Your task to perform on an android device: Open display settings Image 0: 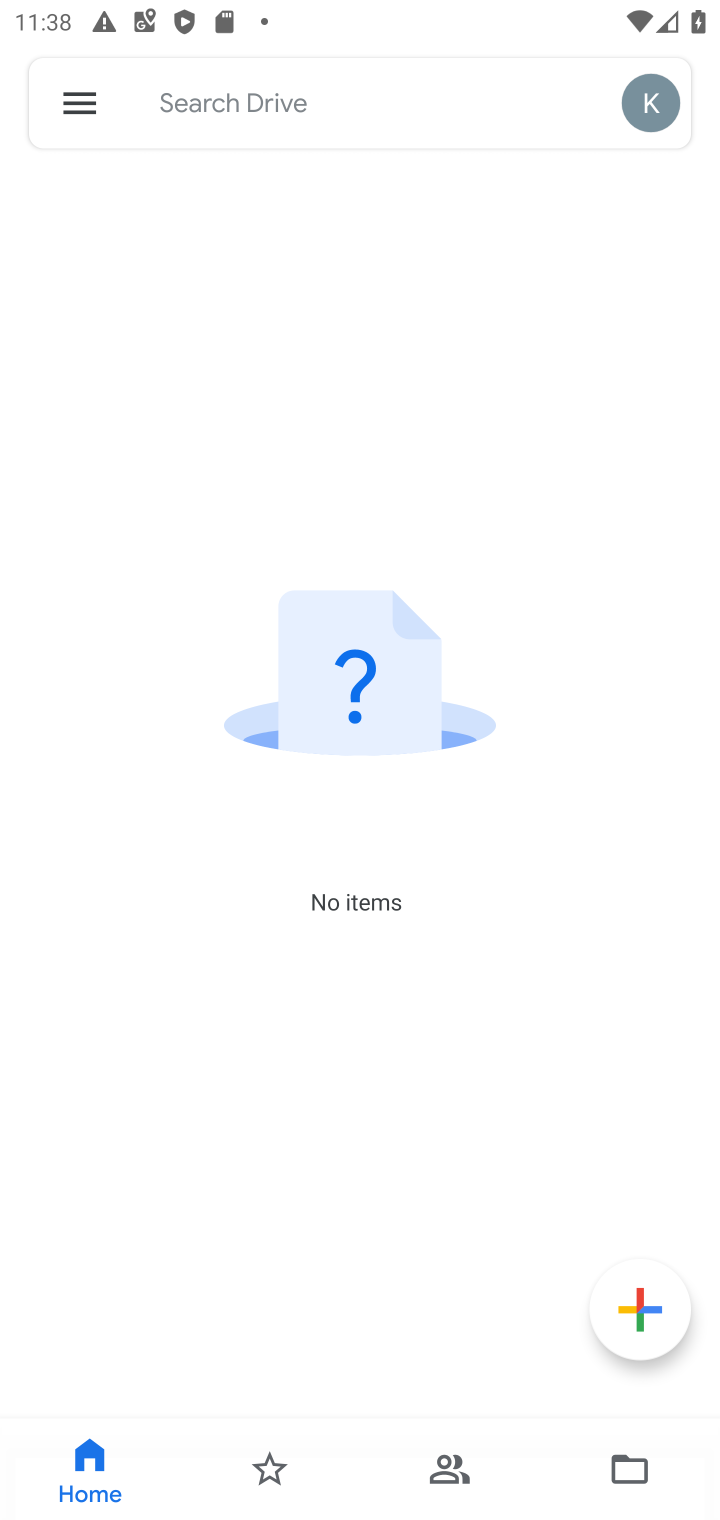
Step 0: press home button
Your task to perform on an android device: Open display settings Image 1: 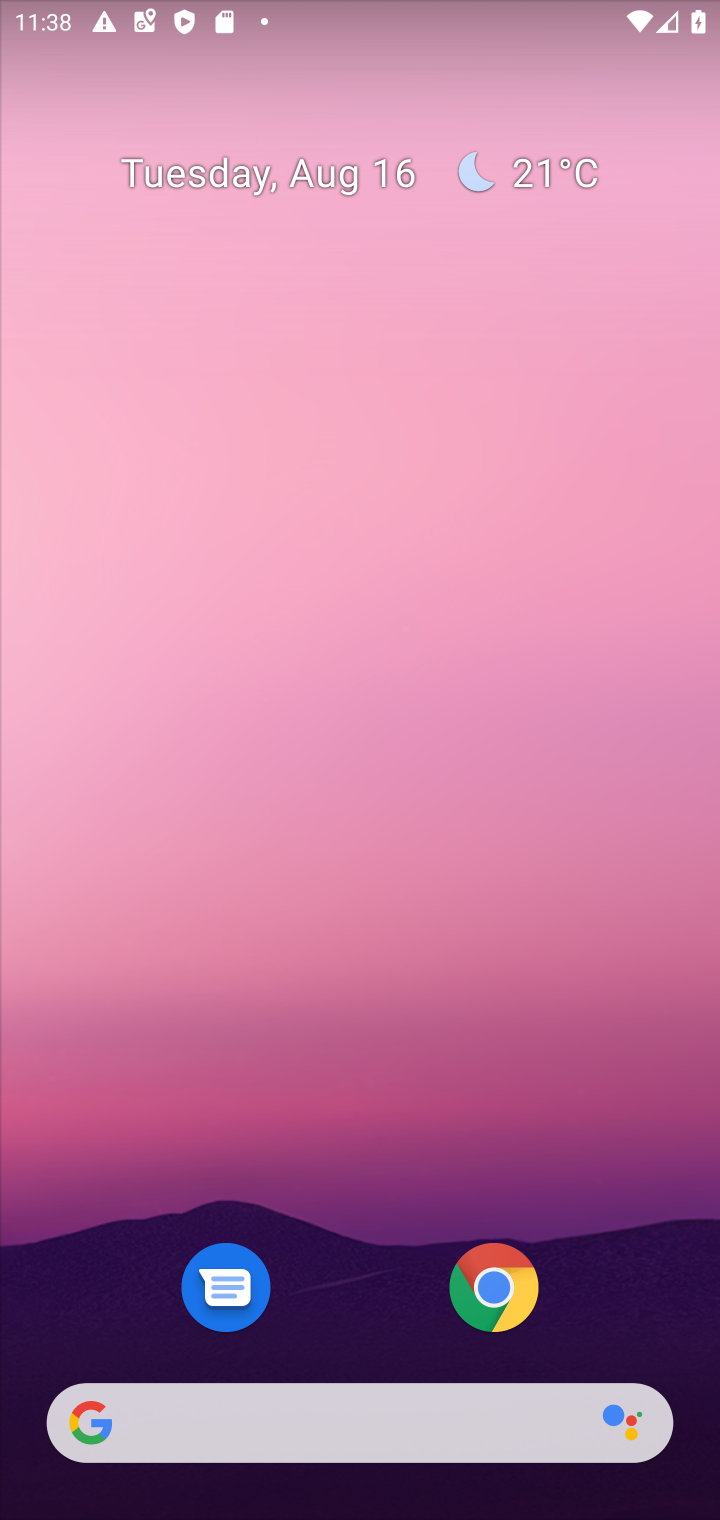
Step 1: drag from (666, 1323) to (601, 327)
Your task to perform on an android device: Open display settings Image 2: 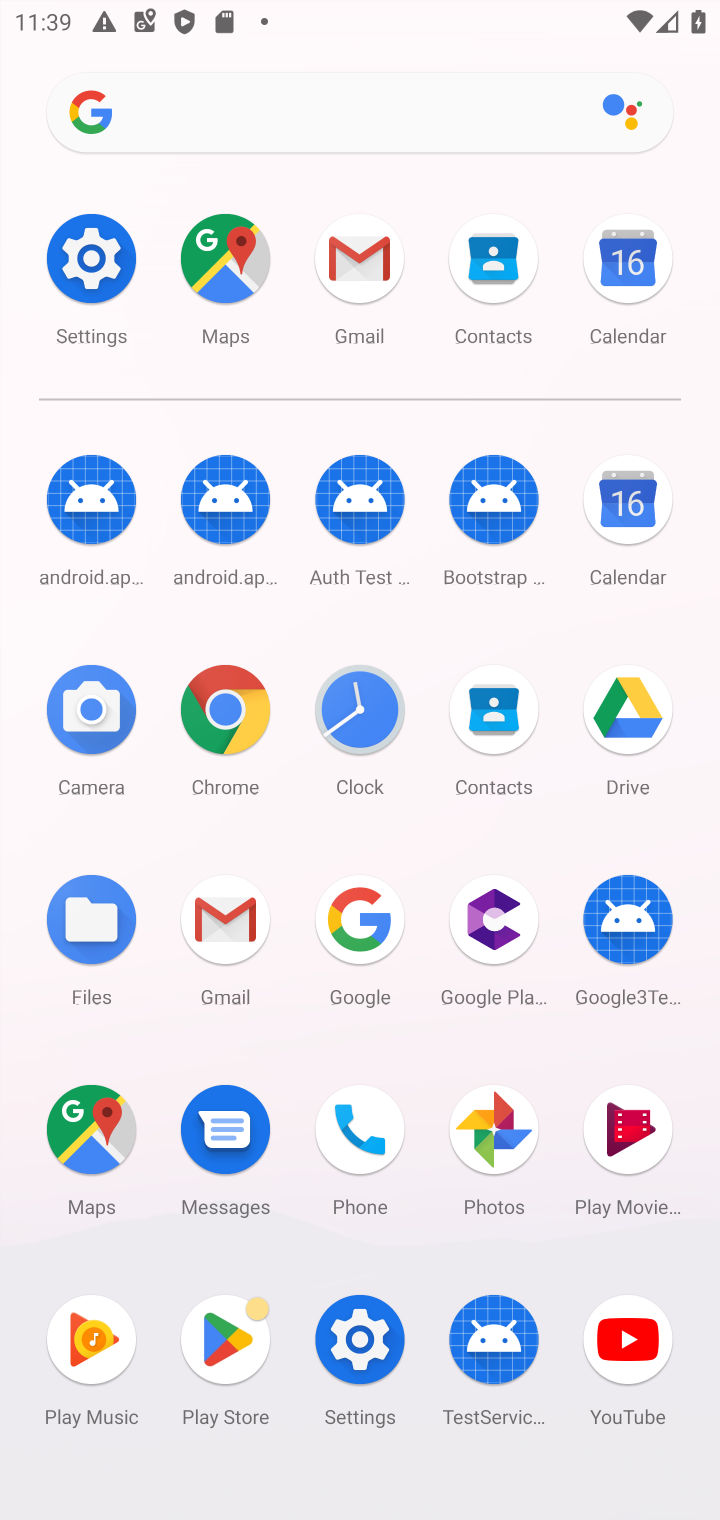
Step 2: click (355, 1339)
Your task to perform on an android device: Open display settings Image 3: 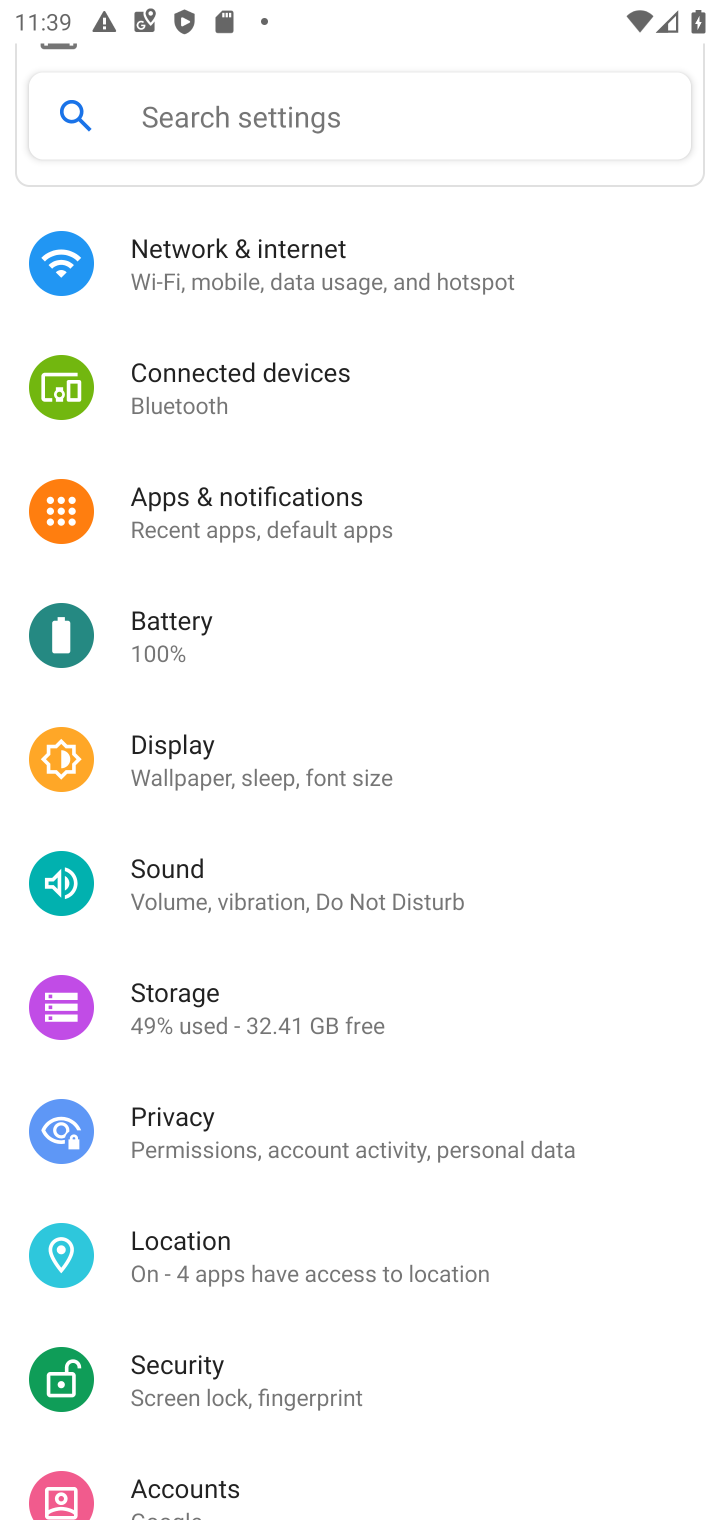
Step 3: click (183, 758)
Your task to perform on an android device: Open display settings Image 4: 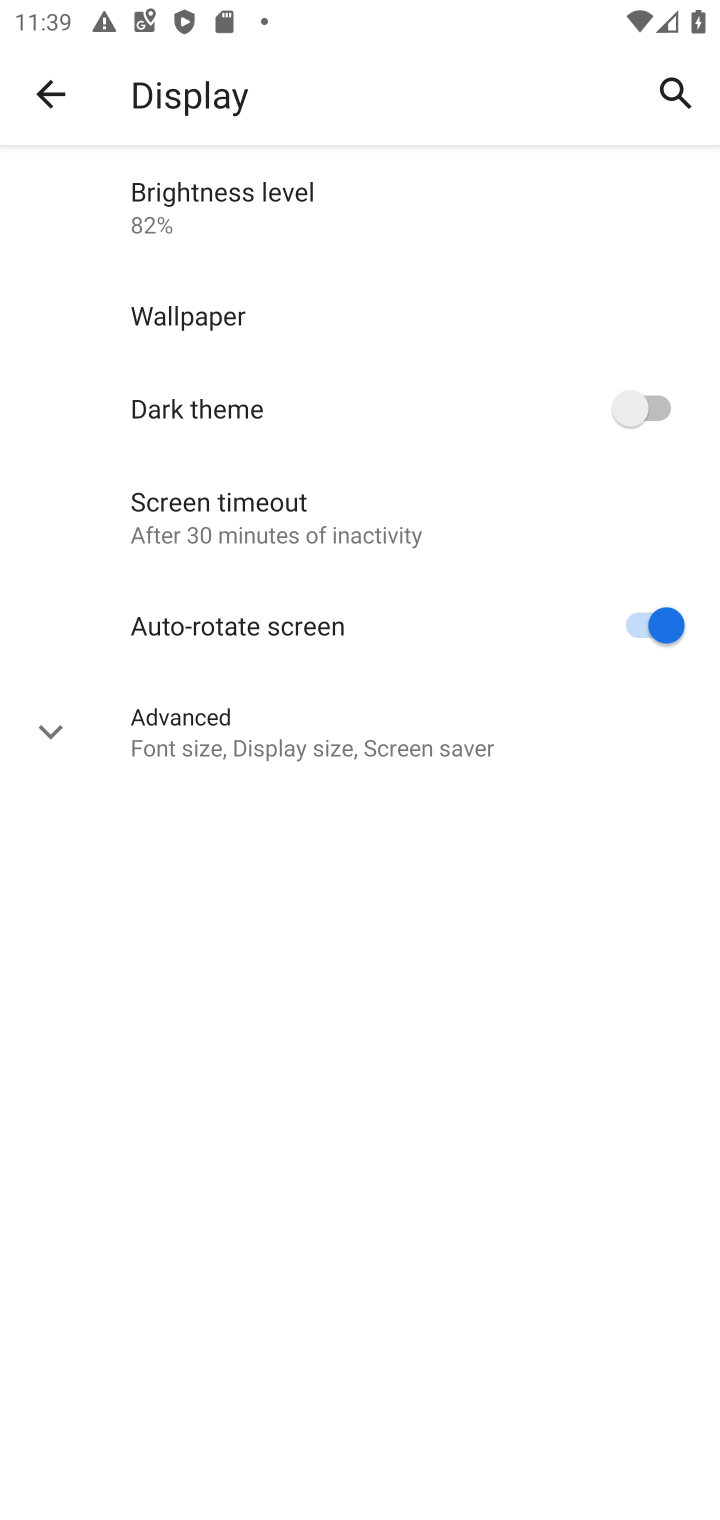
Step 4: click (39, 732)
Your task to perform on an android device: Open display settings Image 5: 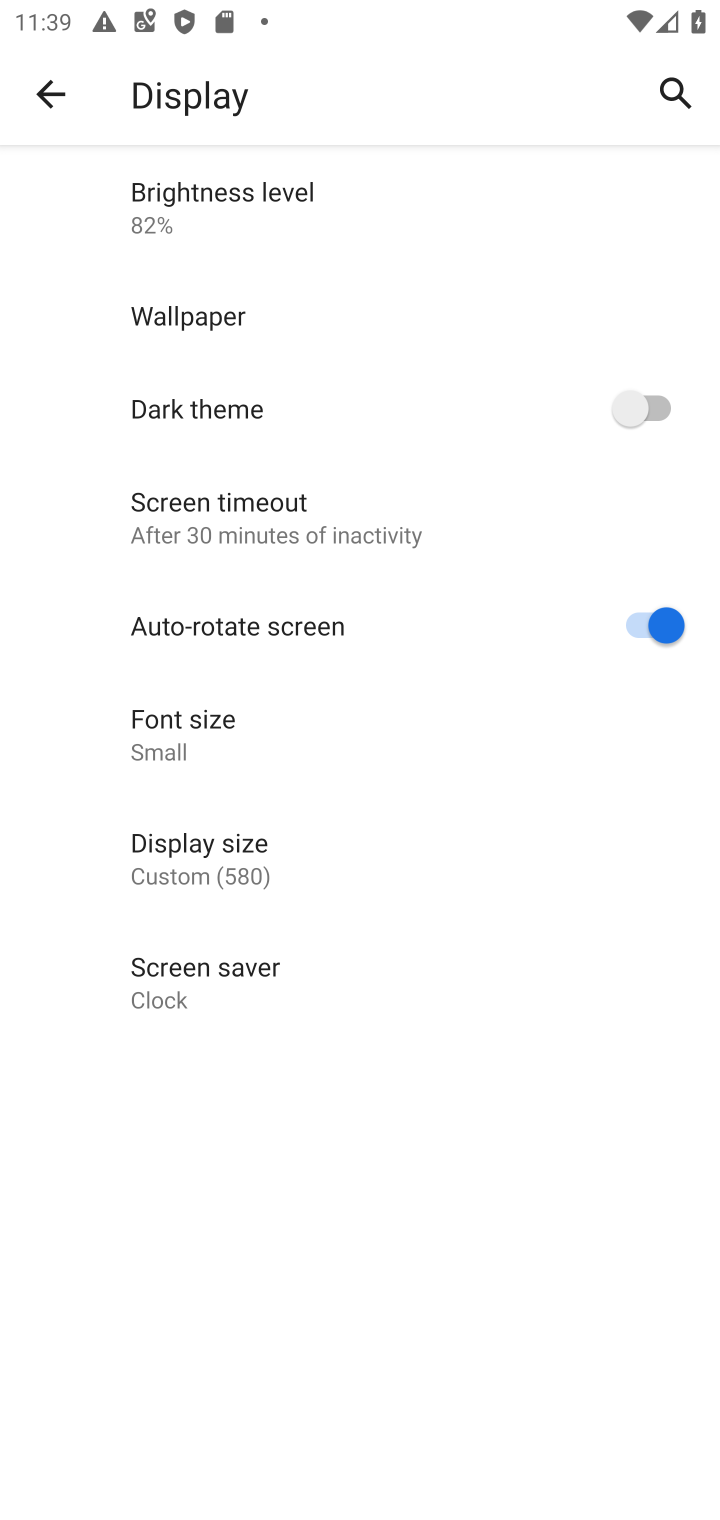
Step 5: task complete